Your task to perform on an android device: set the stopwatch Image 0: 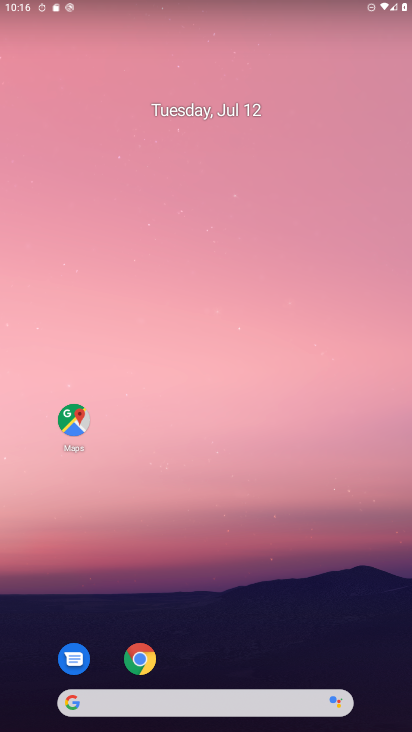
Step 0: drag from (247, 728) to (247, 114)
Your task to perform on an android device: set the stopwatch Image 1: 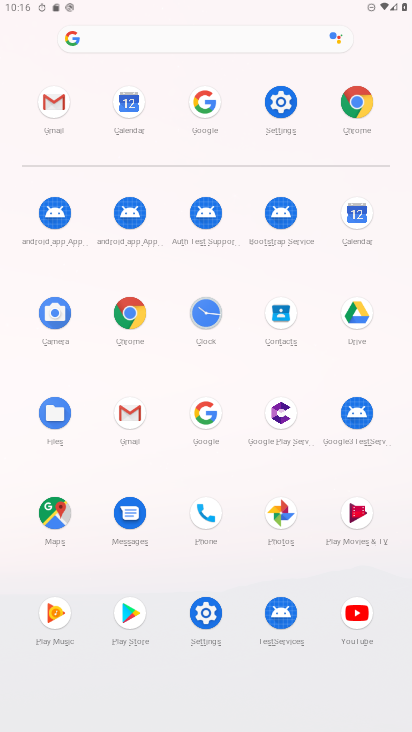
Step 1: click (203, 317)
Your task to perform on an android device: set the stopwatch Image 2: 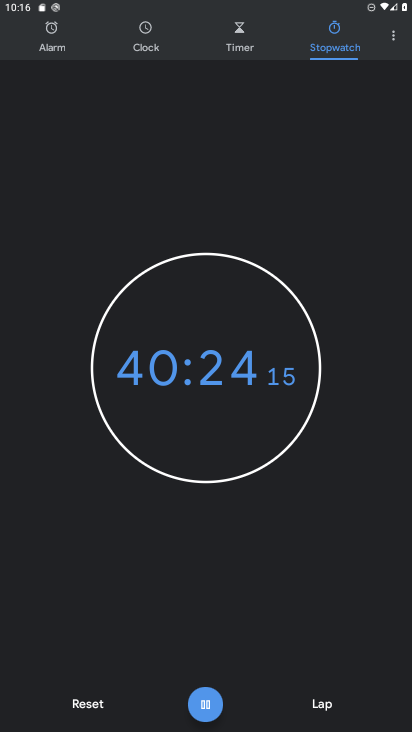
Step 2: click (90, 707)
Your task to perform on an android device: set the stopwatch Image 3: 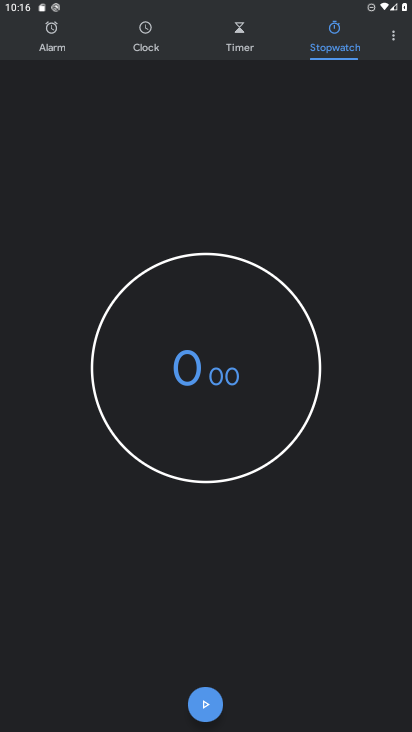
Step 3: click (210, 383)
Your task to perform on an android device: set the stopwatch Image 4: 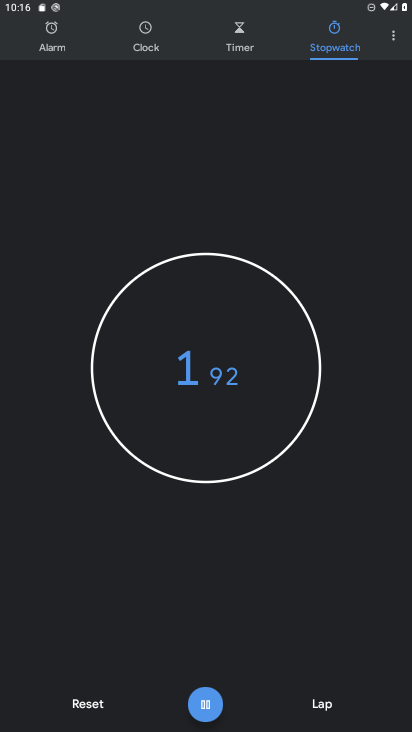
Step 4: type "55"
Your task to perform on an android device: set the stopwatch Image 5: 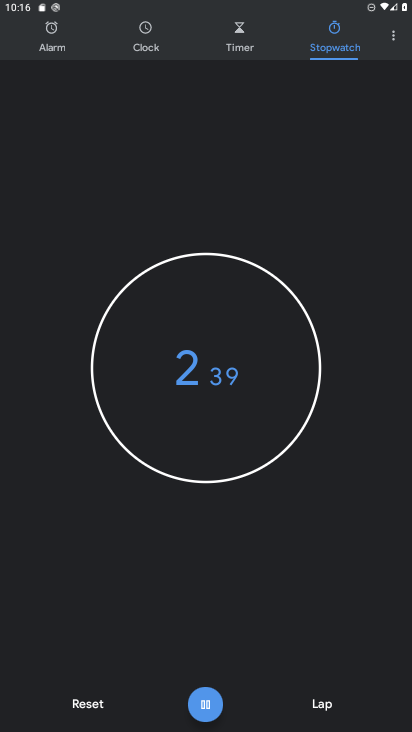
Step 5: type ""
Your task to perform on an android device: set the stopwatch Image 6: 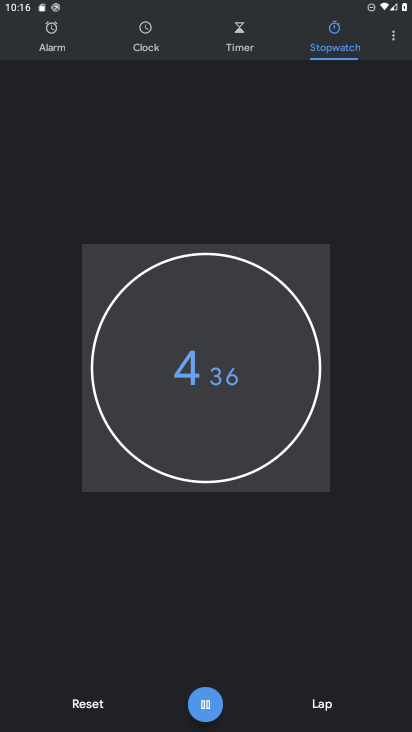
Step 6: task complete